Your task to perform on an android device: Go to Yahoo.com Image 0: 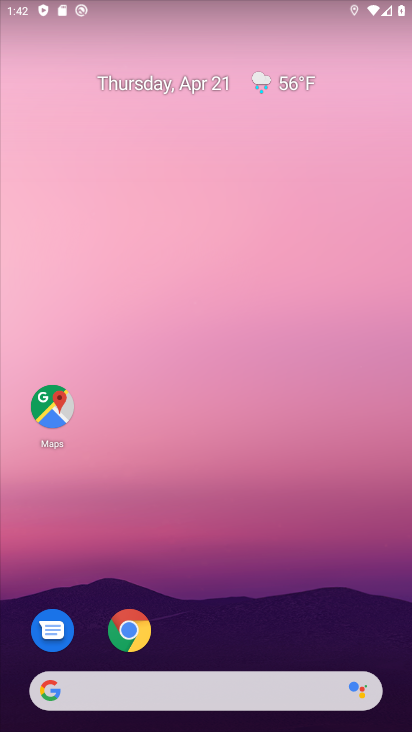
Step 0: click (134, 618)
Your task to perform on an android device: Go to Yahoo.com Image 1: 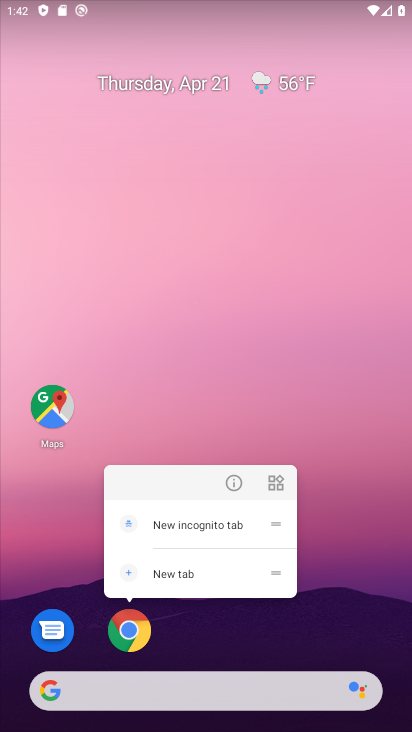
Step 1: click (133, 656)
Your task to perform on an android device: Go to Yahoo.com Image 2: 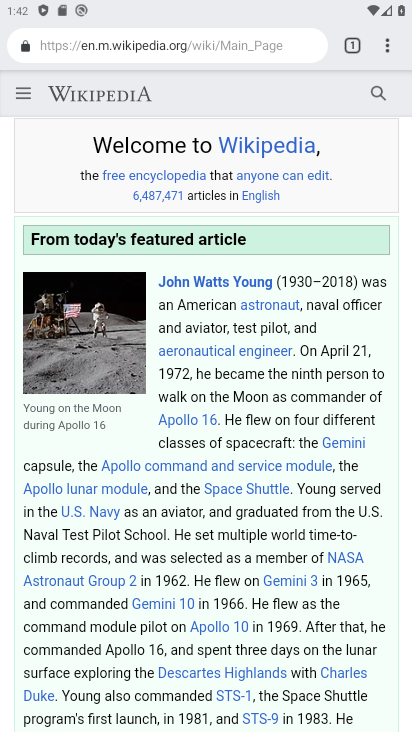
Step 2: click (178, 47)
Your task to perform on an android device: Go to Yahoo.com Image 3: 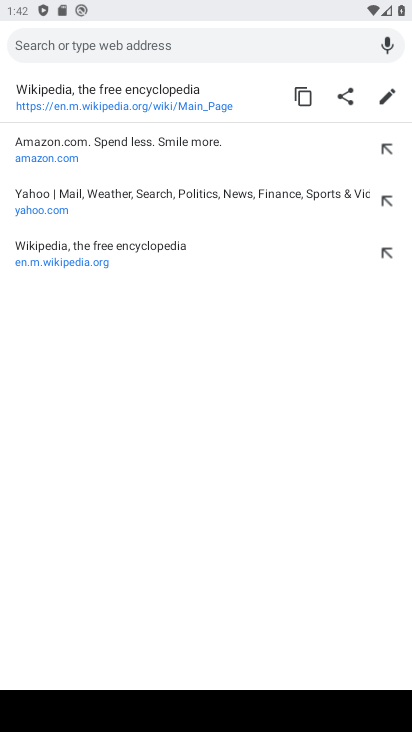
Step 3: type "yahoo.com"
Your task to perform on an android device: Go to Yahoo.com Image 4: 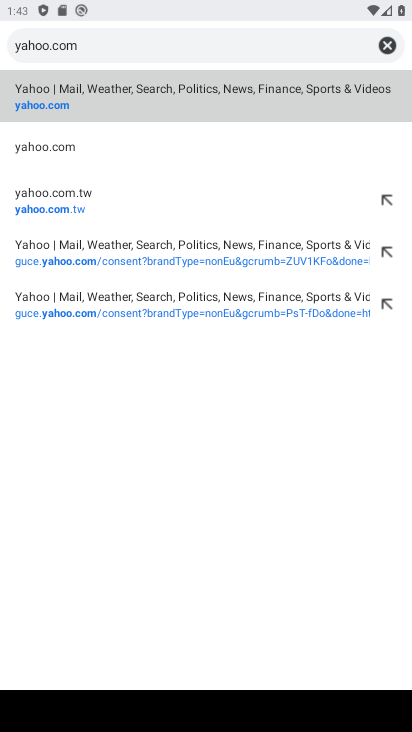
Step 4: click (120, 82)
Your task to perform on an android device: Go to Yahoo.com Image 5: 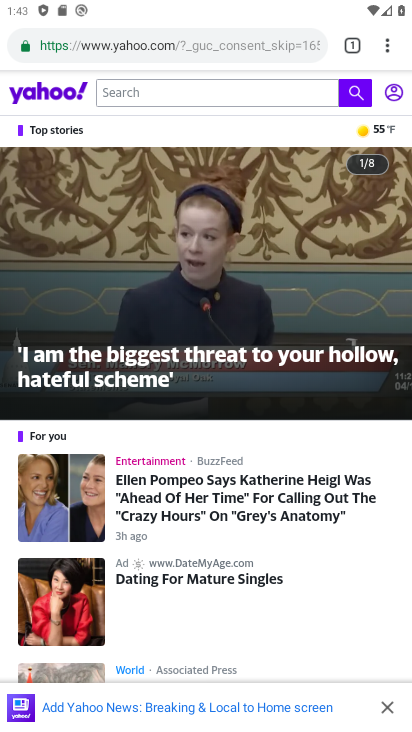
Step 5: task complete